Your task to perform on an android device: uninstall "Reddit" Image 0: 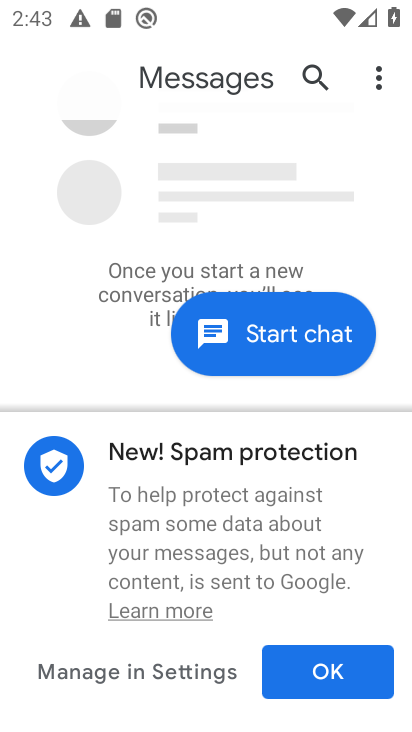
Step 0: press home button
Your task to perform on an android device: uninstall "Reddit" Image 1: 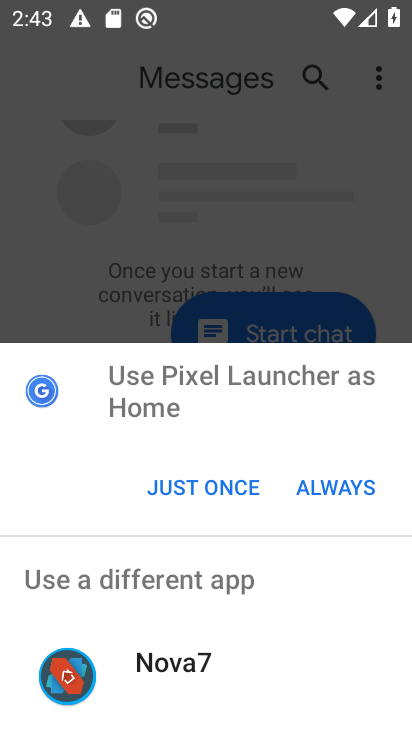
Step 1: click (248, 485)
Your task to perform on an android device: uninstall "Reddit" Image 2: 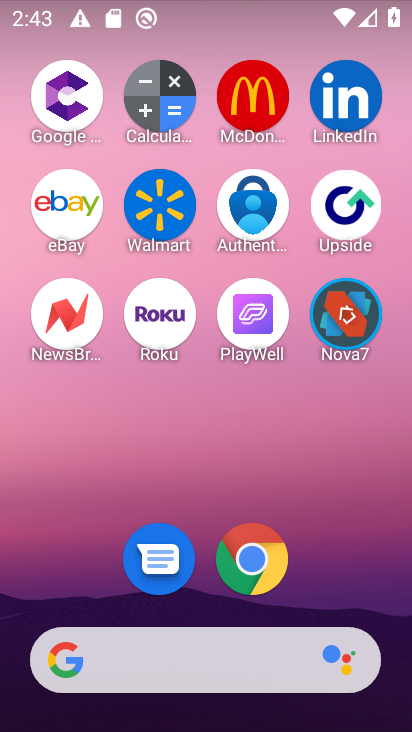
Step 2: drag from (129, 543) to (75, 121)
Your task to perform on an android device: uninstall "Reddit" Image 3: 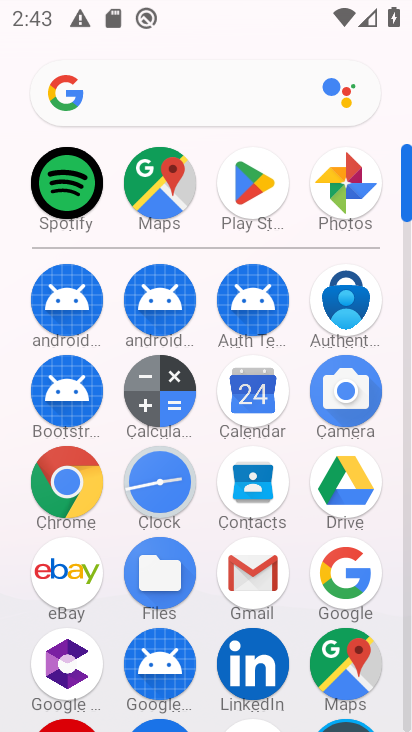
Step 3: click (258, 188)
Your task to perform on an android device: uninstall "Reddit" Image 4: 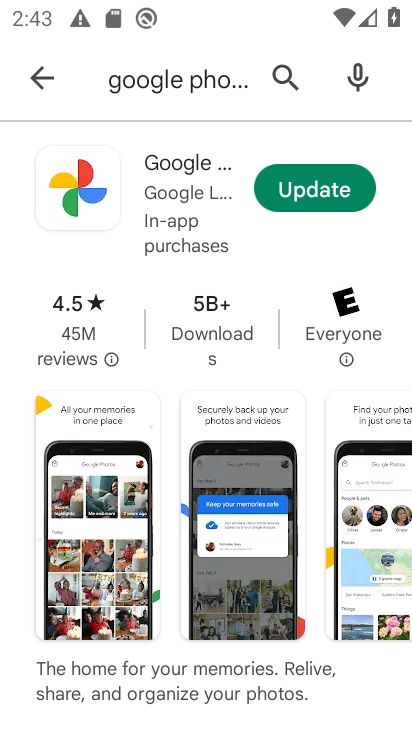
Step 4: click (281, 72)
Your task to perform on an android device: uninstall "Reddit" Image 5: 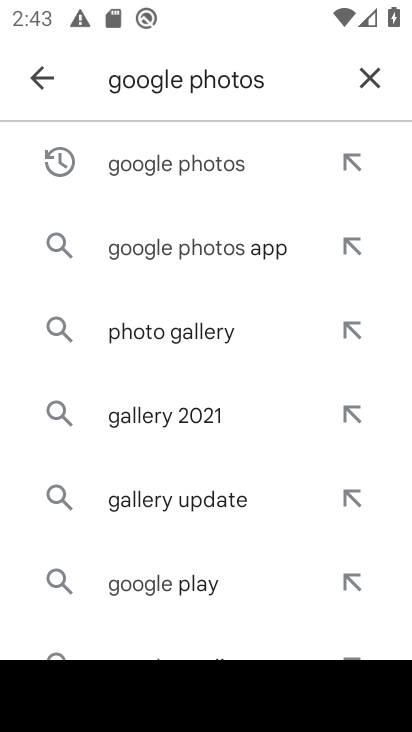
Step 5: click (372, 76)
Your task to perform on an android device: uninstall "Reddit" Image 6: 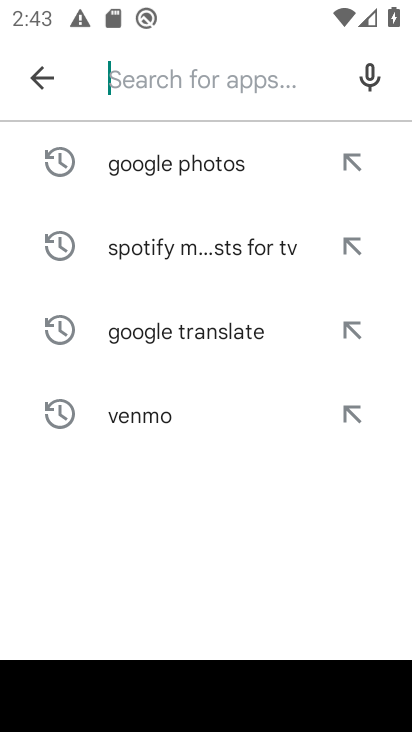
Step 6: type "Reddit"
Your task to perform on an android device: uninstall "Reddit" Image 7: 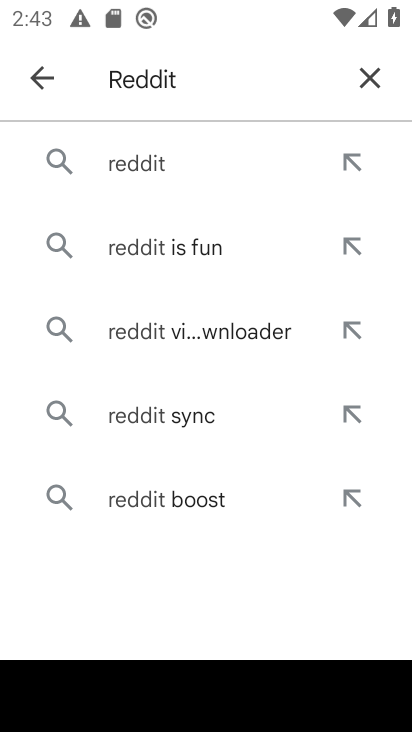
Step 7: click (161, 165)
Your task to perform on an android device: uninstall "Reddit" Image 8: 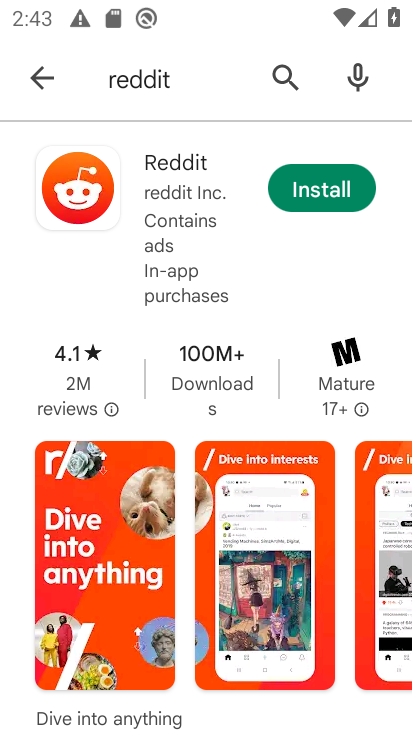
Step 8: click (321, 193)
Your task to perform on an android device: uninstall "Reddit" Image 9: 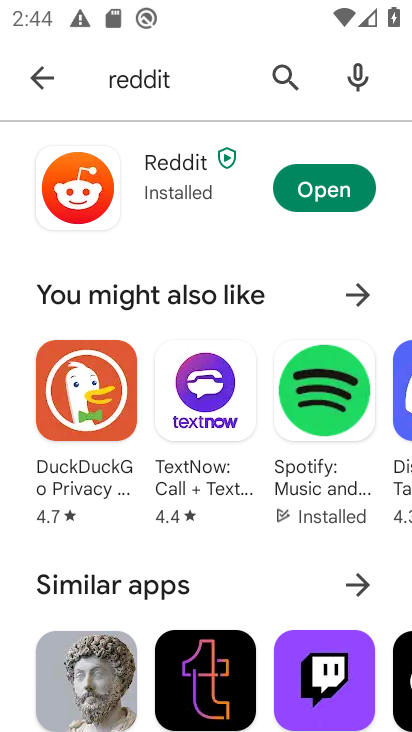
Step 9: click (200, 173)
Your task to perform on an android device: uninstall "Reddit" Image 10: 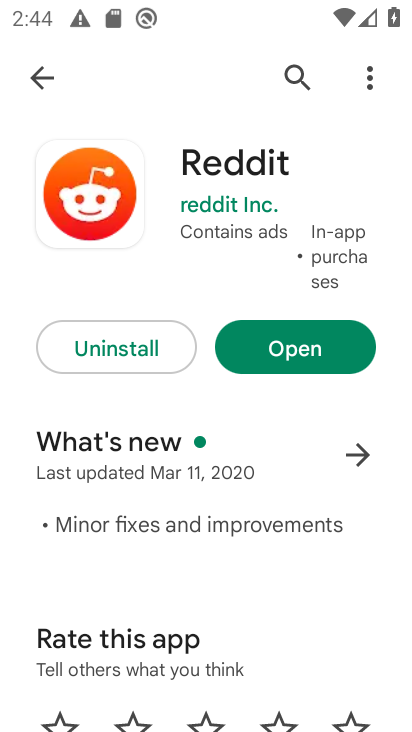
Step 10: click (111, 347)
Your task to perform on an android device: uninstall "Reddit" Image 11: 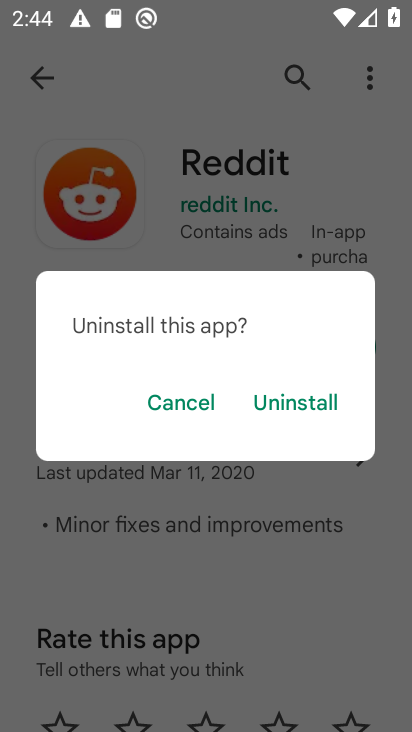
Step 11: click (333, 400)
Your task to perform on an android device: uninstall "Reddit" Image 12: 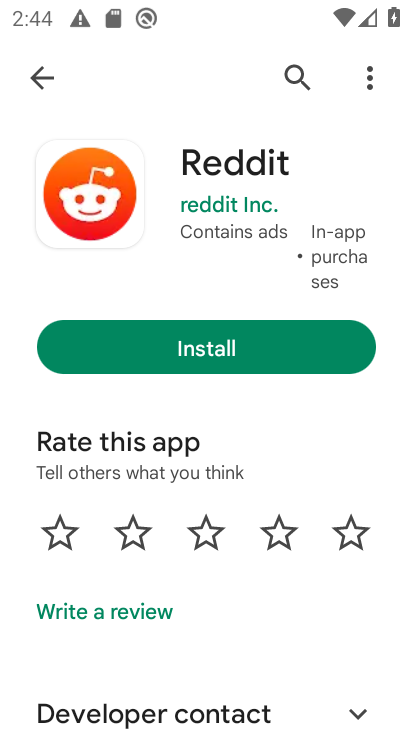
Step 12: task complete